Your task to perform on an android device: Open my contact list Image 0: 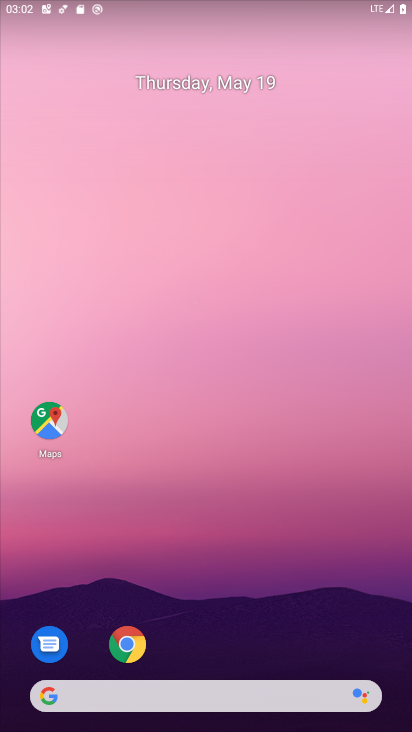
Step 0: drag from (271, 600) to (304, 200)
Your task to perform on an android device: Open my contact list Image 1: 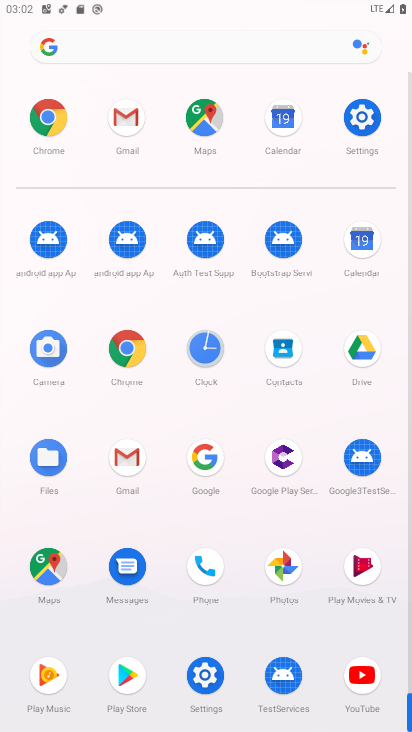
Step 1: click (195, 555)
Your task to perform on an android device: Open my contact list Image 2: 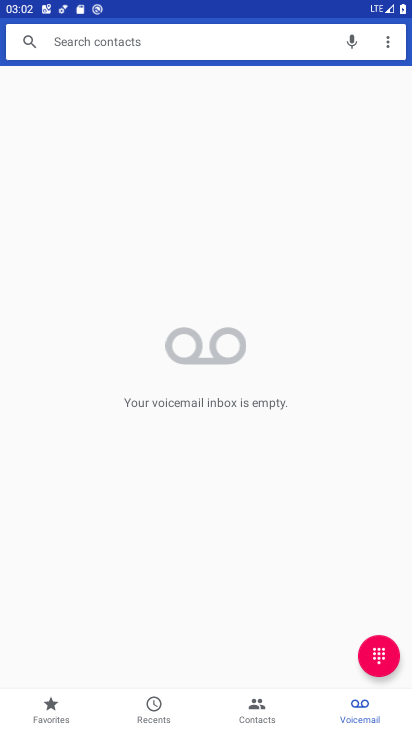
Step 2: click (262, 700)
Your task to perform on an android device: Open my contact list Image 3: 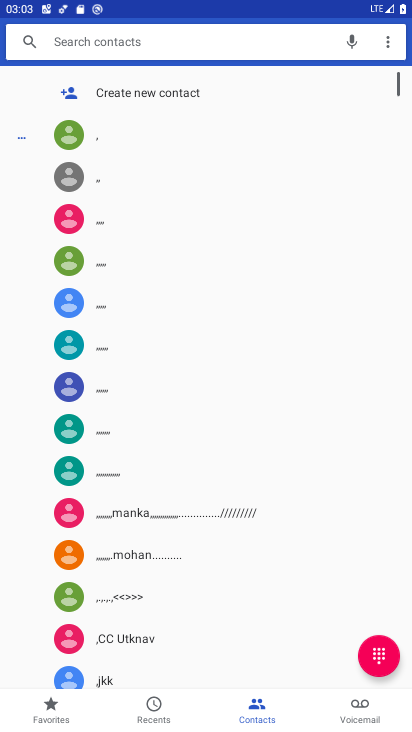
Step 3: task complete